Your task to perform on an android device: set the stopwatch Image 0: 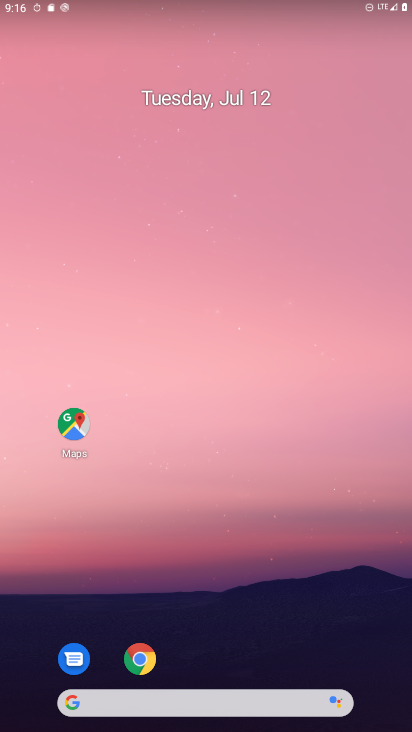
Step 0: drag from (340, 565) to (243, 79)
Your task to perform on an android device: set the stopwatch Image 1: 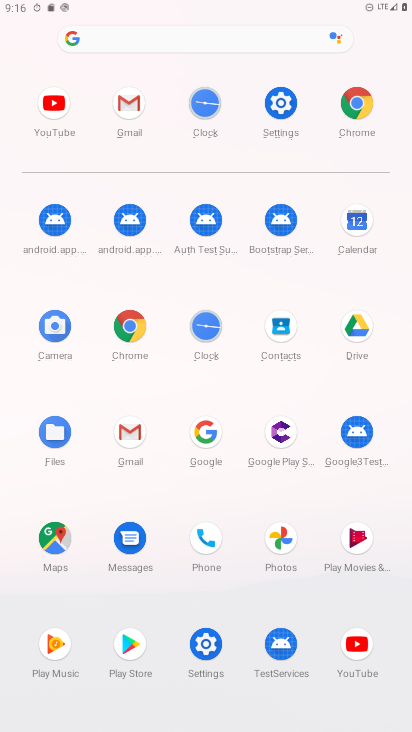
Step 1: click (211, 326)
Your task to perform on an android device: set the stopwatch Image 2: 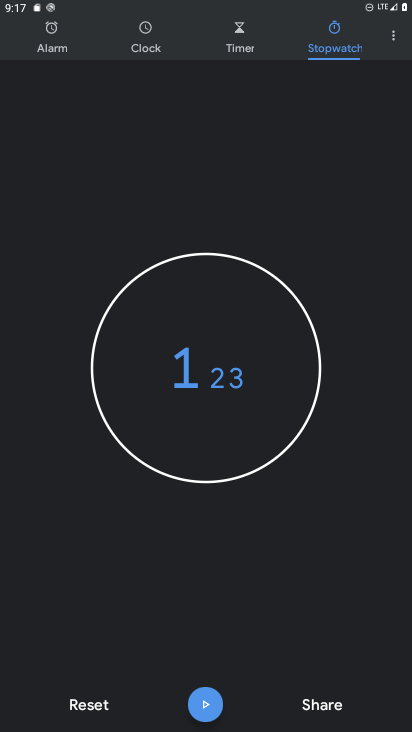
Step 2: task complete